Your task to perform on an android device: toggle notifications settings in the gmail app Image 0: 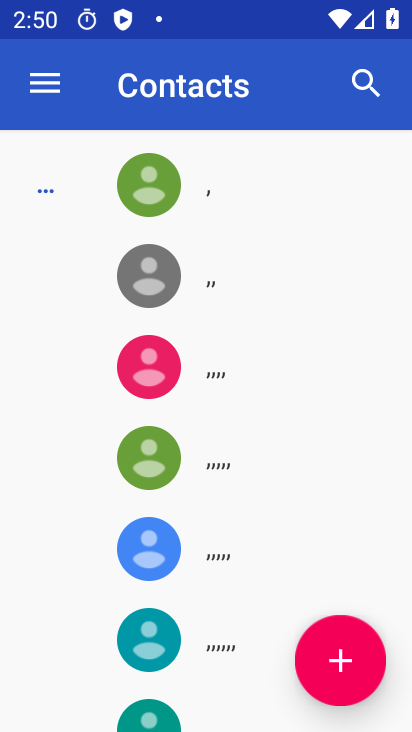
Step 0: press home button
Your task to perform on an android device: toggle notifications settings in the gmail app Image 1: 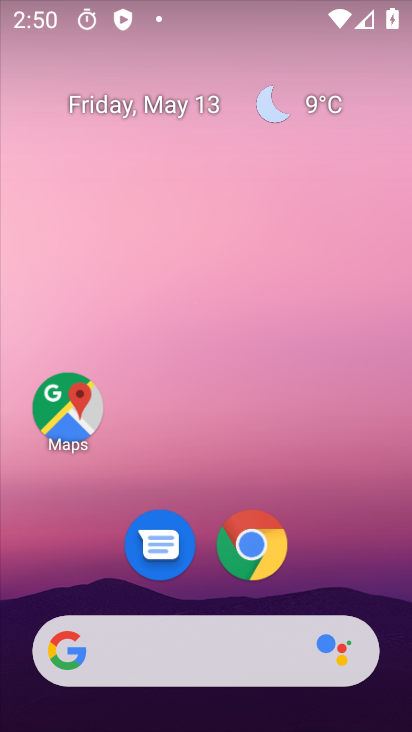
Step 1: drag from (334, 593) to (351, 173)
Your task to perform on an android device: toggle notifications settings in the gmail app Image 2: 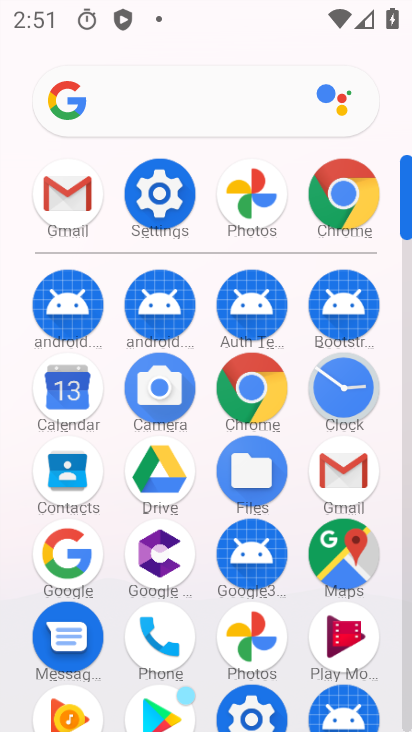
Step 2: click (338, 472)
Your task to perform on an android device: toggle notifications settings in the gmail app Image 3: 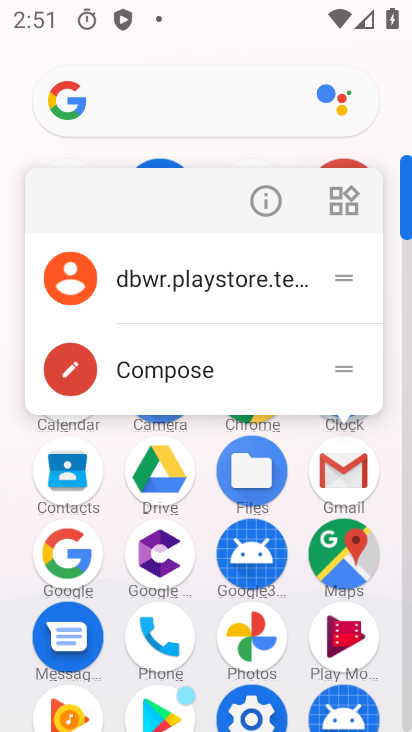
Step 3: click (267, 197)
Your task to perform on an android device: toggle notifications settings in the gmail app Image 4: 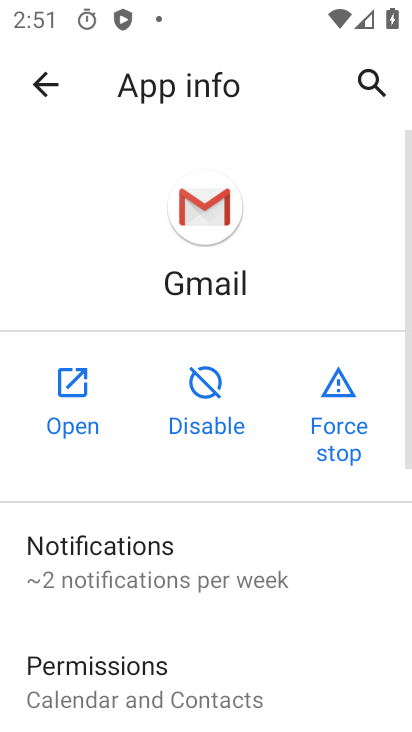
Step 4: click (159, 559)
Your task to perform on an android device: toggle notifications settings in the gmail app Image 5: 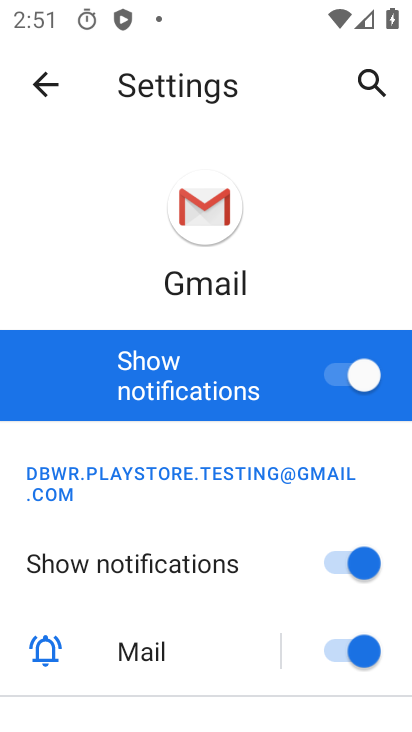
Step 5: click (336, 376)
Your task to perform on an android device: toggle notifications settings in the gmail app Image 6: 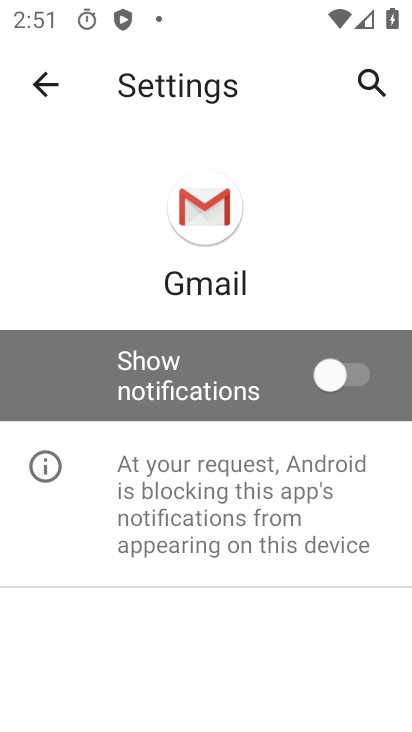
Step 6: task complete